Your task to perform on an android device: change the clock display to show seconds Image 0: 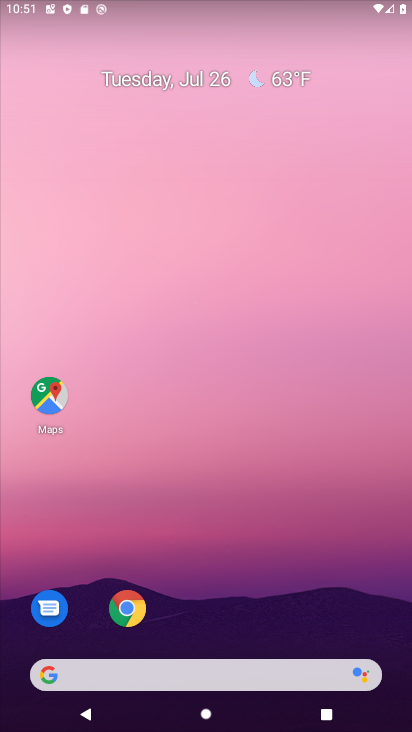
Step 0: press home button
Your task to perform on an android device: change the clock display to show seconds Image 1: 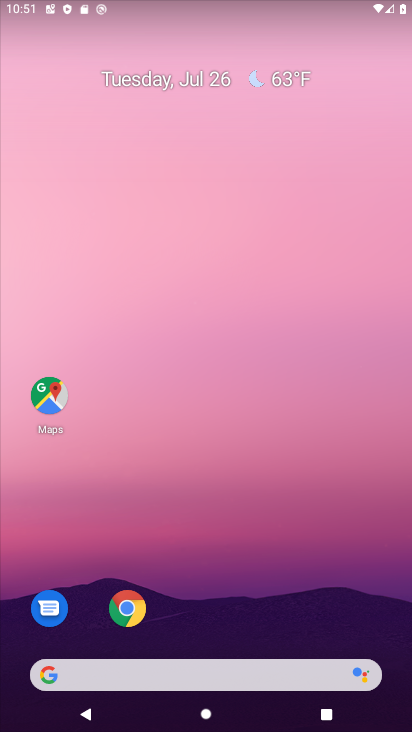
Step 1: drag from (293, 592) to (274, 12)
Your task to perform on an android device: change the clock display to show seconds Image 2: 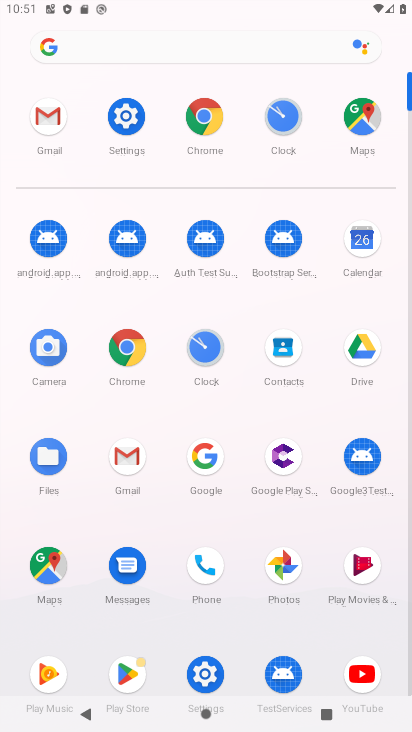
Step 2: click (205, 349)
Your task to perform on an android device: change the clock display to show seconds Image 3: 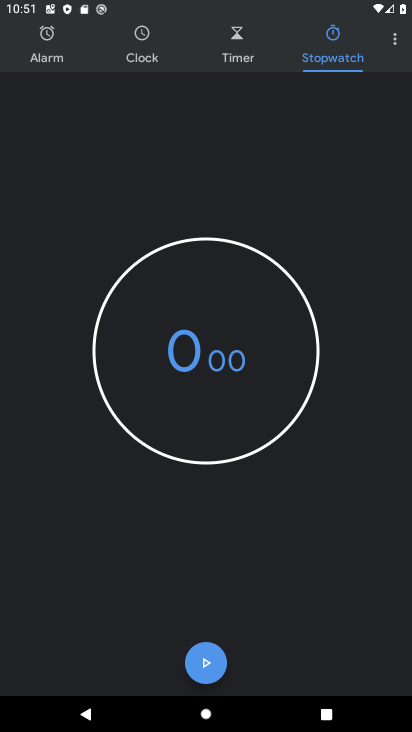
Step 3: click (393, 37)
Your task to perform on an android device: change the clock display to show seconds Image 4: 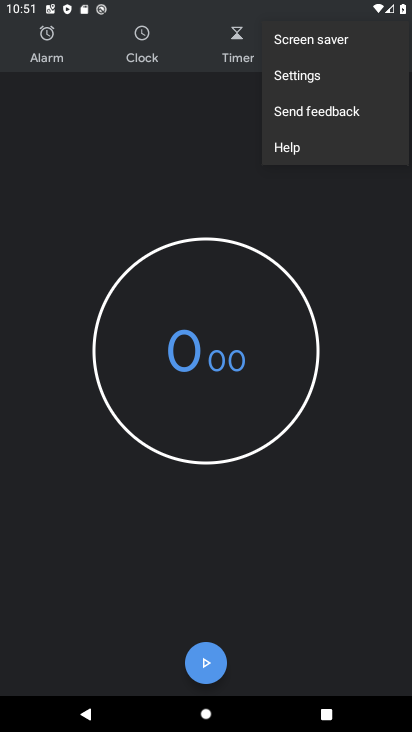
Step 4: click (310, 78)
Your task to perform on an android device: change the clock display to show seconds Image 5: 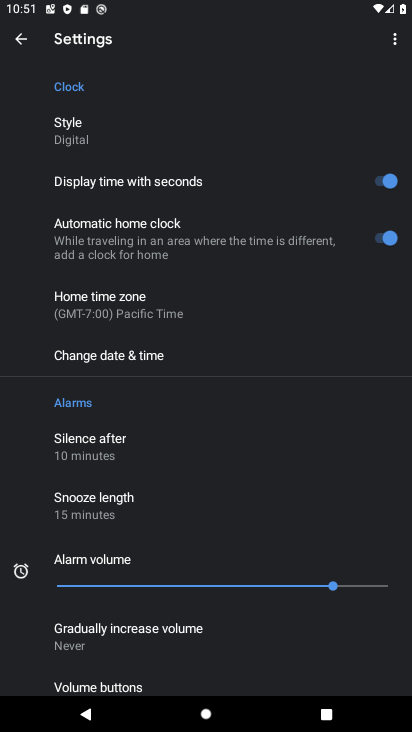
Step 5: task complete